Your task to perform on an android device: delete browsing data in the chrome app Image 0: 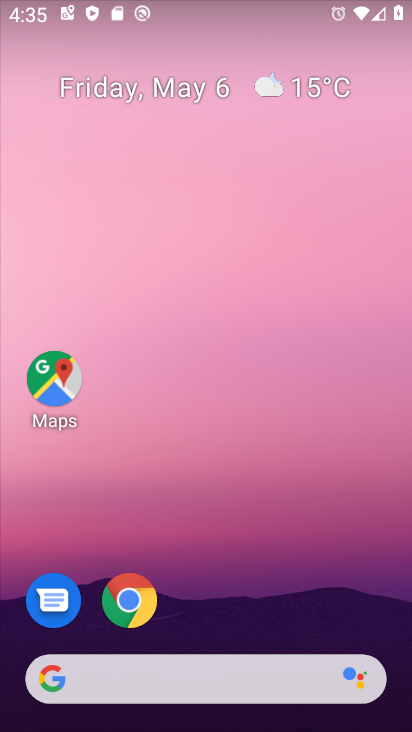
Step 0: click (142, 598)
Your task to perform on an android device: delete browsing data in the chrome app Image 1: 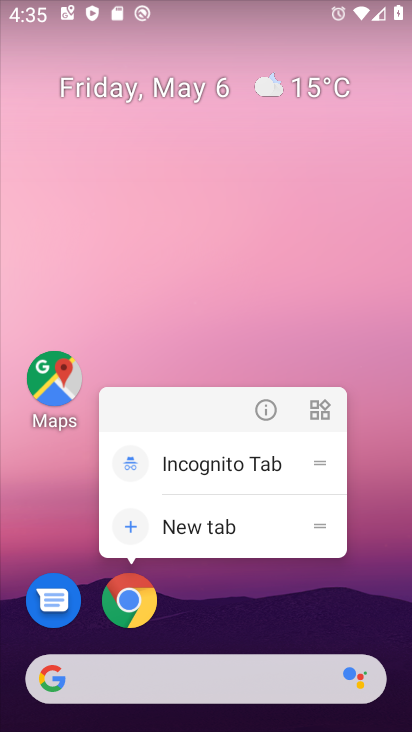
Step 1: click (142, 598)
Your task to perform on an android device: delete browsing data in the chrome app Image 2: 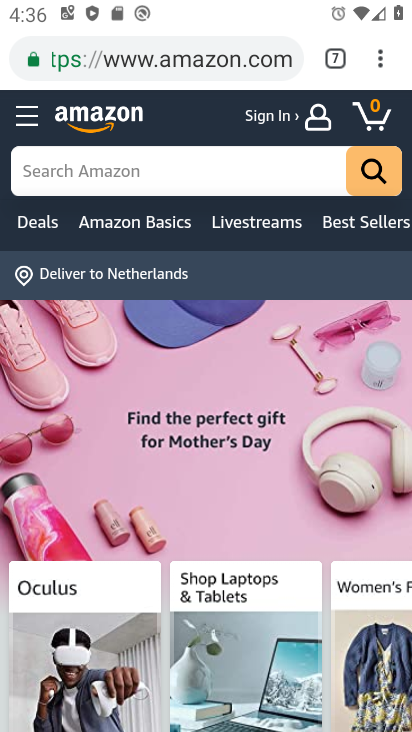
Step 2: click (378, 57)
Your task to perform on an android device: delete browsing data in the chrome app Image 3: 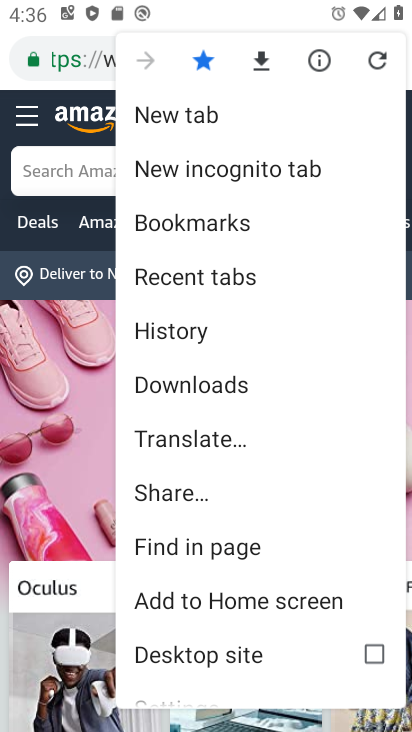
Step 3: click (174, 334)
Your task to perform on an android device: delete browsing data in the chrome app Image 4: 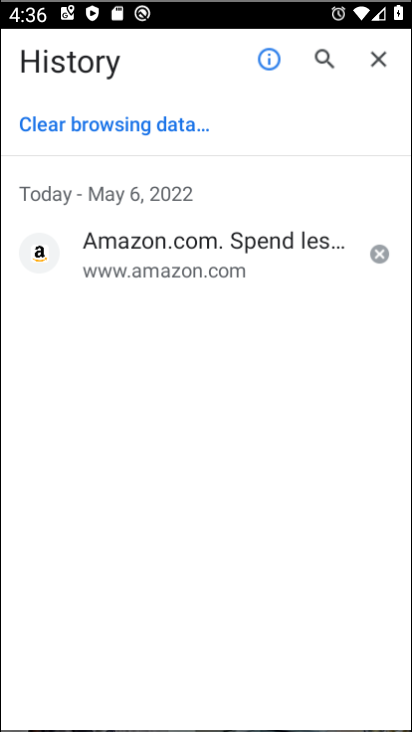
Step 4: click (167, 339)
Your task to perform on an android device: delete browsing data in the chrome app Image 5: 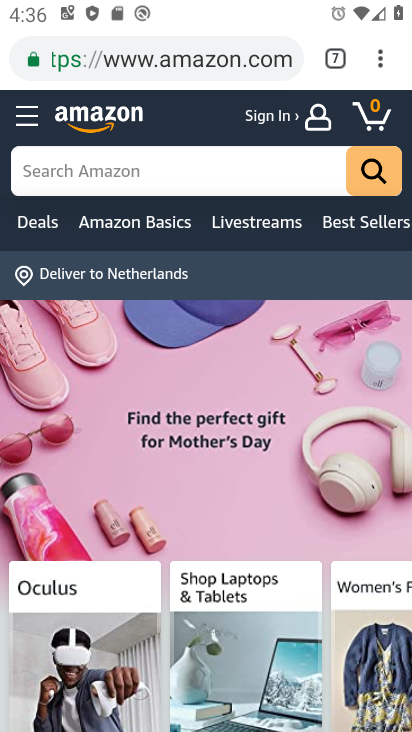
Step 5: click (375, 66)
Your task to perform on an android device: delete browsing data in the chrome app Image 6: 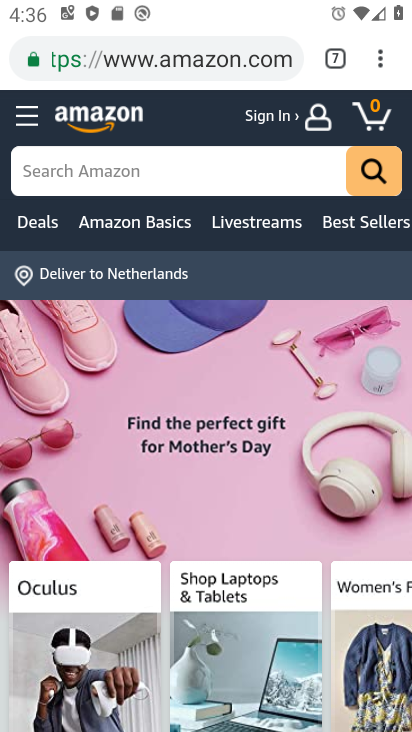
Step 6: click (384, 66)
Your task to perform on an android device: delete browsing data in the chrome app Image 7: 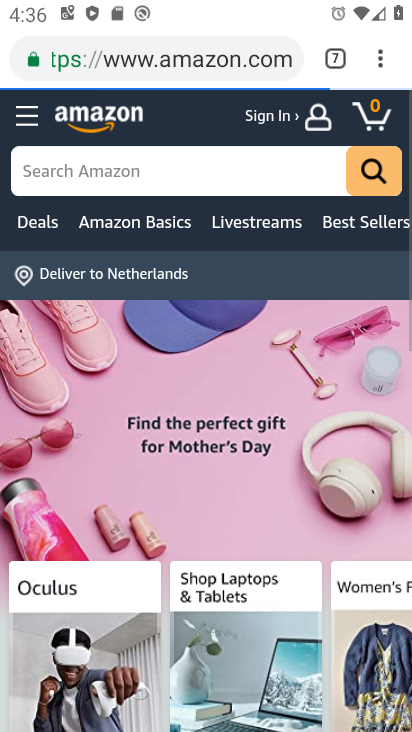
Step 7: click (378, 53)
Your task to perform on an android device: delete browsing data in the chrome app Image 8: 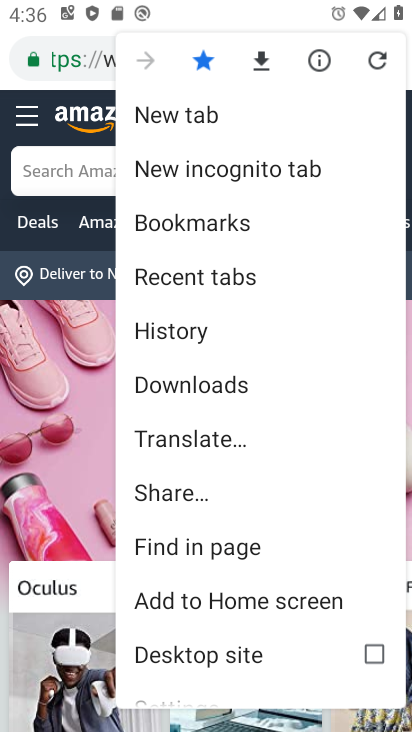
Step 8: click (194, 342)
Your task to perform on an android device: delete browsing data in the chrome app Image 9: 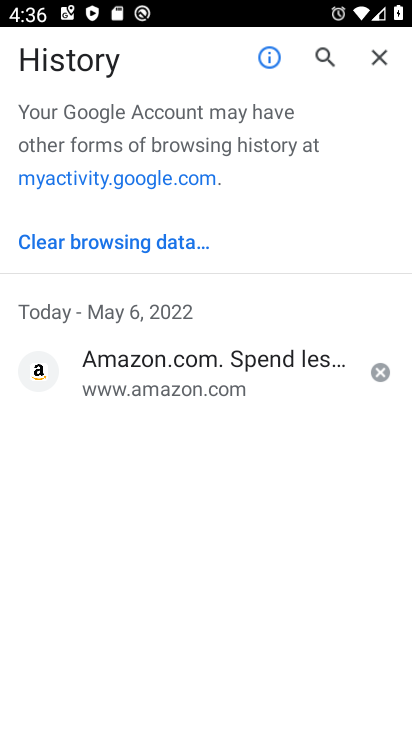
Step 9: click (138, 129)
Your task to perform on an android device: delete browsing data in the chrome app Image 10: 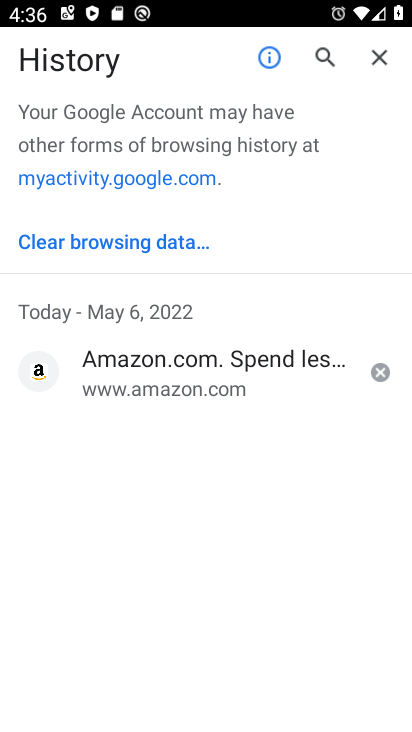
Step 10: click (125, 235)
Your task to perform on an android device: delete browsing data in the chrome app Image 11: 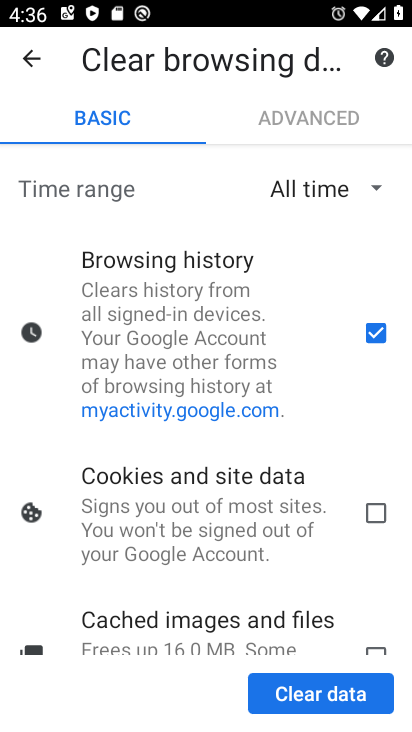
Step 11: click (357, 525)
Your task to perform on an android device: delete browsing data in the chrome app Image 12: 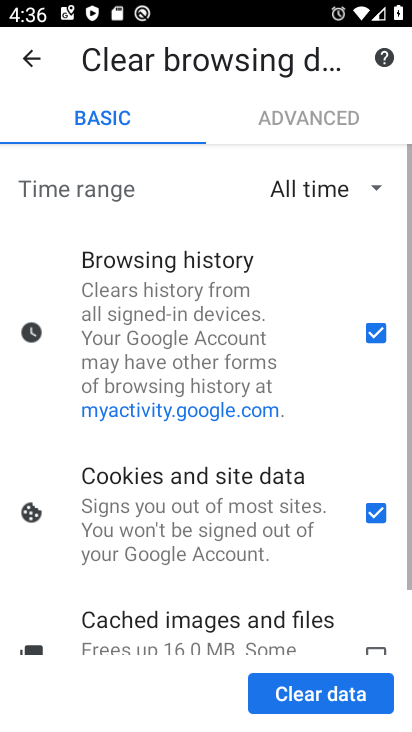
Step 12: drag from (296, 577) to (293, 275)
Your task to perform on an android device: delete browsing data in the chrome app Image 13: 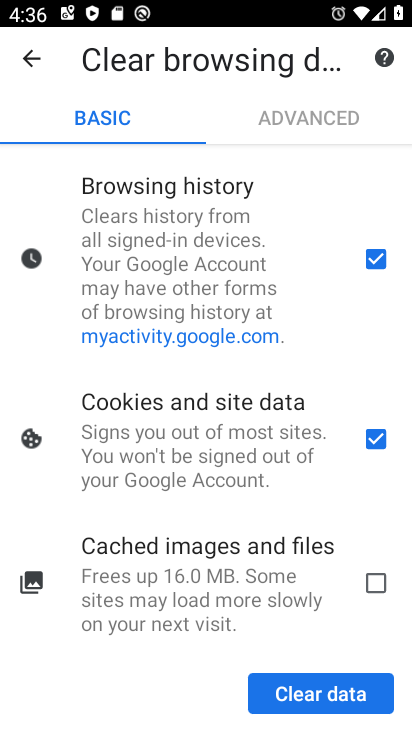
Step 13: click (362, 582)
Your task to perform on an android device: delete browsing data in the chrome app Image 14: 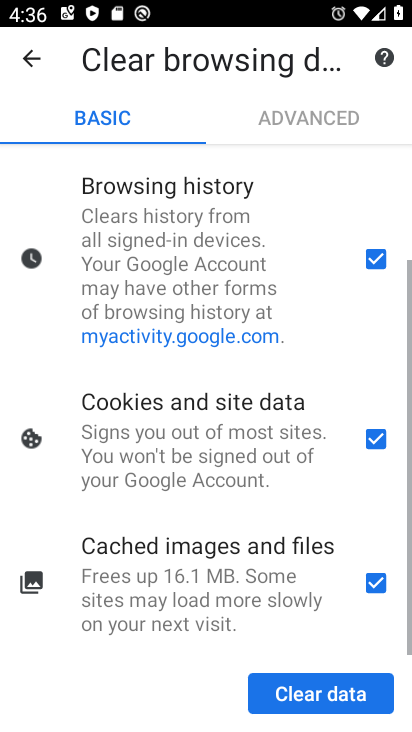
Step 14: click (338, 692)
Your task to perform on an android device: delete browsing data in the chrome app Image 15: 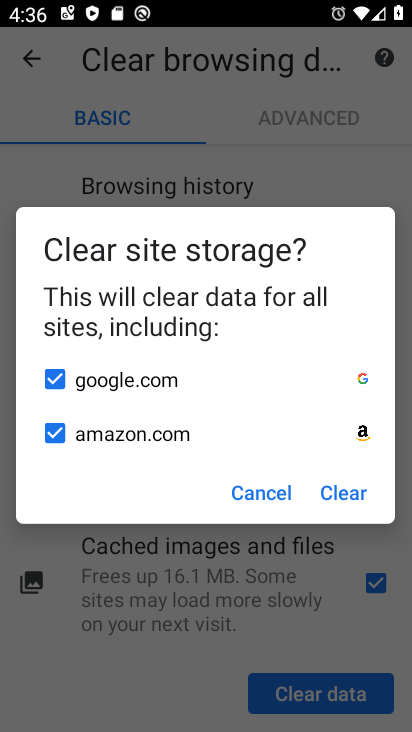
Step 15: click (343, 507)
Your task to perform on an android device: delete browsing data in the chrome app Image 16: 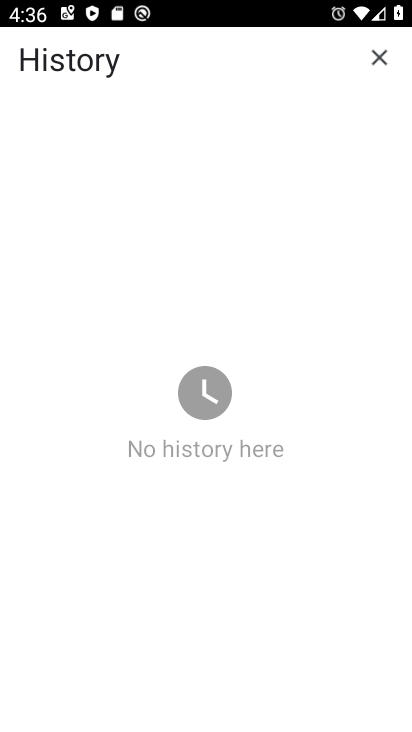
Step 16: task complete